Your task to perform on an android device: How do I get to the nearest T-Mobile Store? Image 0: 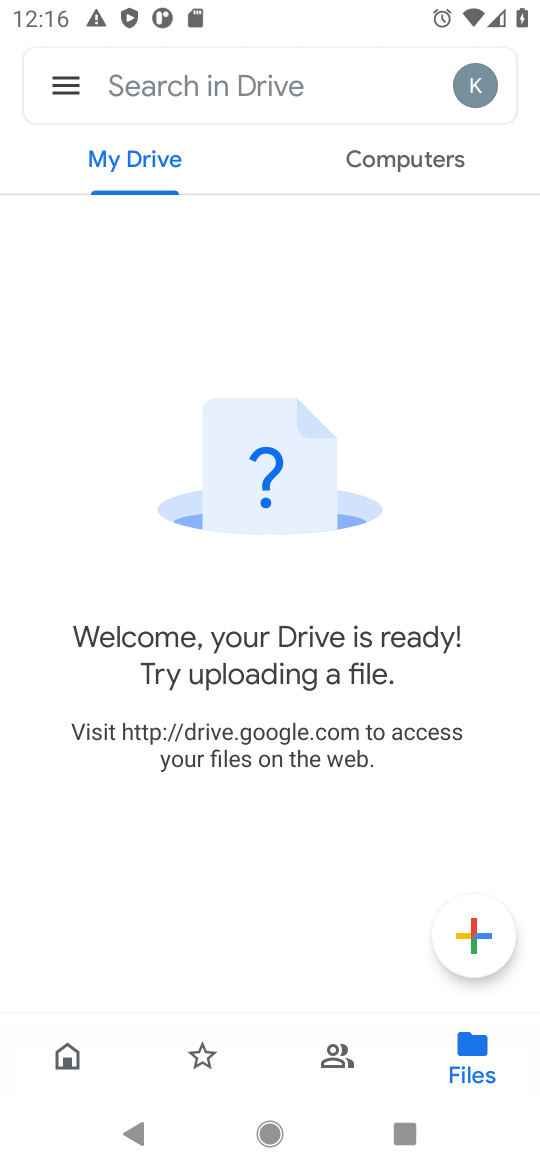
Step 0: press home button
Your task to perform on an android device: How do I get to the nearest T-Mobile Store? Image 1: 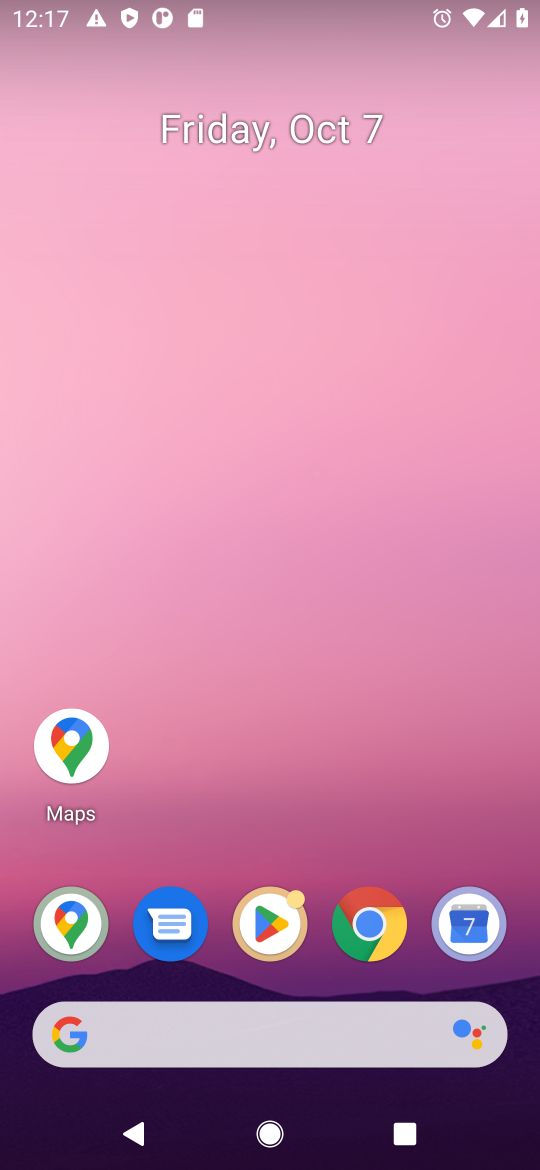
Step 1: click (360, 924)
Your task to perform on an android device: How do I get to the nearest T-Mobile Store? Image 2: 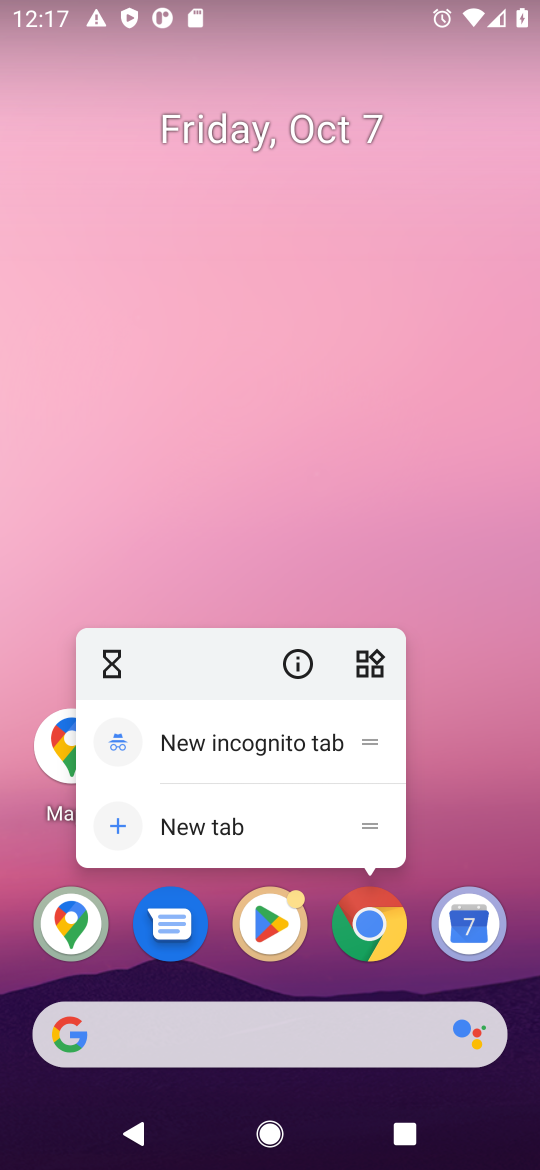
Step 2: click (360, 924)
Your task to perform on an android device: How do I get to the nearest T-Mobile Store? Image 3: 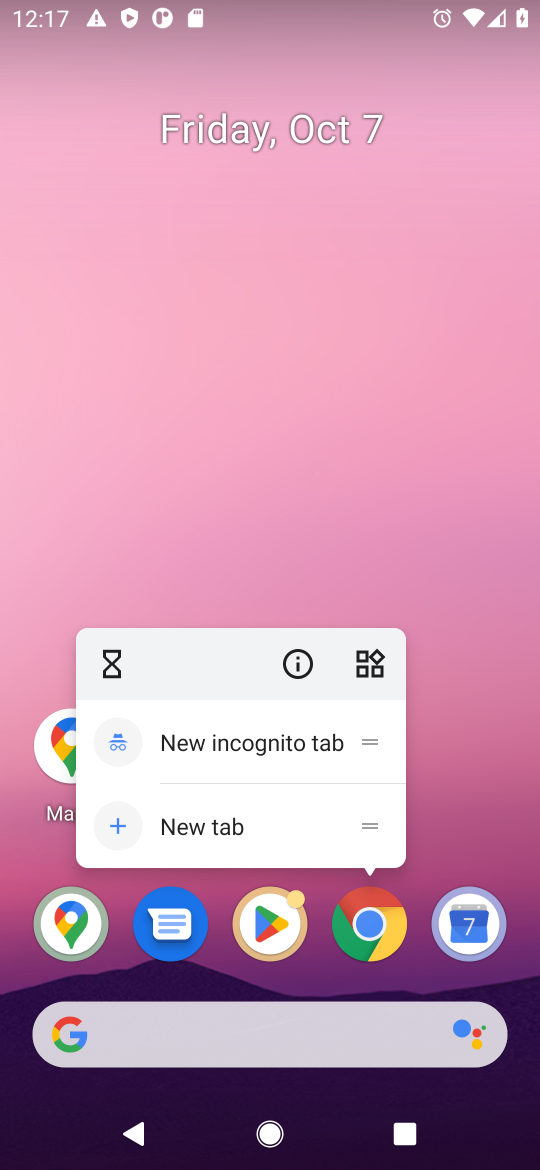
Step 3: click (380, 924)
Your task to perform on an android device: How do I get to the nearest T-Mobile Store? Image 4: 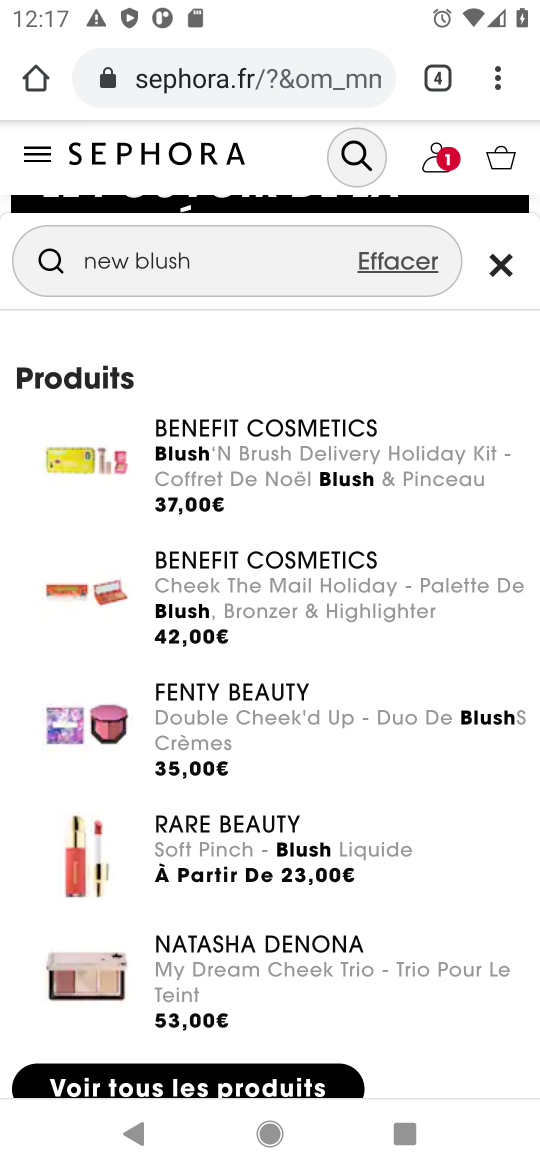
Step 4: click (339, 75)
Your task to perform on an android device: How do I get to the nearest T-Mobile Store? Image 5: 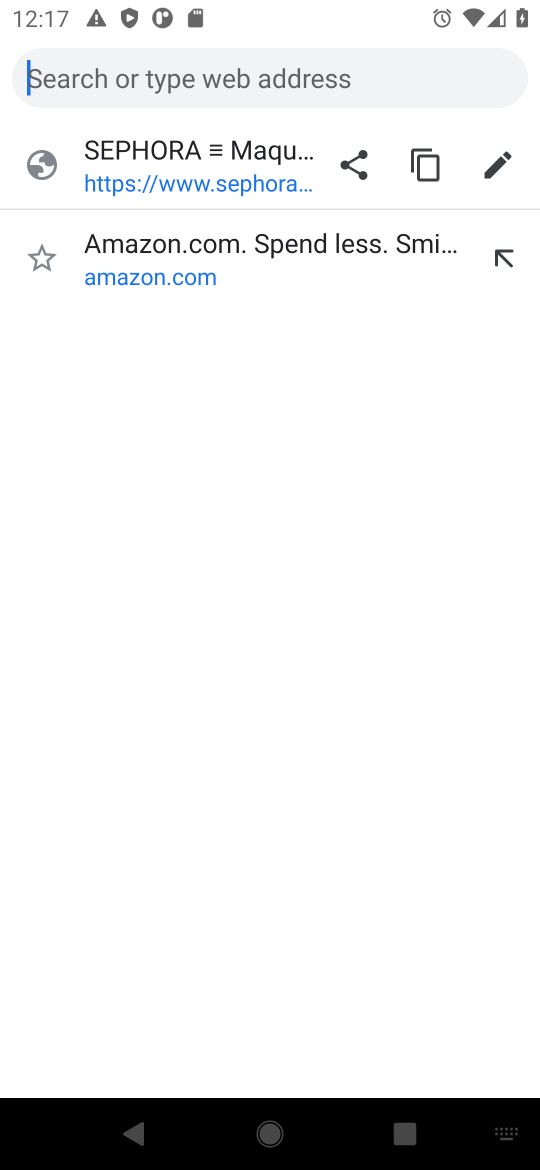
Step 5: type "nearest T-Mobile Store"
Your task to perform on an android device: How do I get to the nearest T-Mobile Store? Image 6: 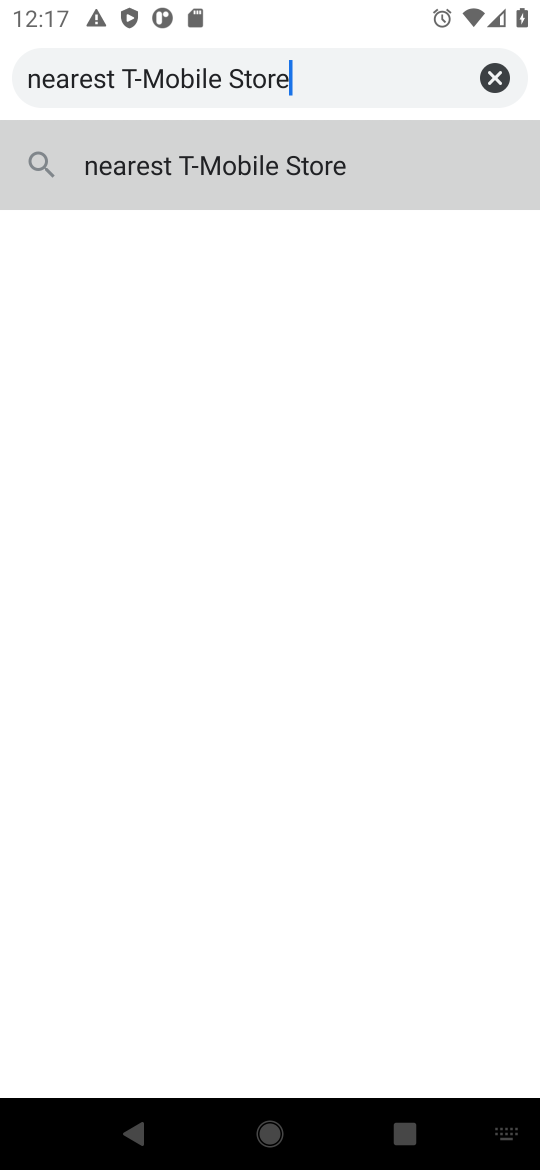
Step 6: click (202, 163)
Your task to perform on an android device: How do I get to the nearest T-Mobile Store? Image 7: 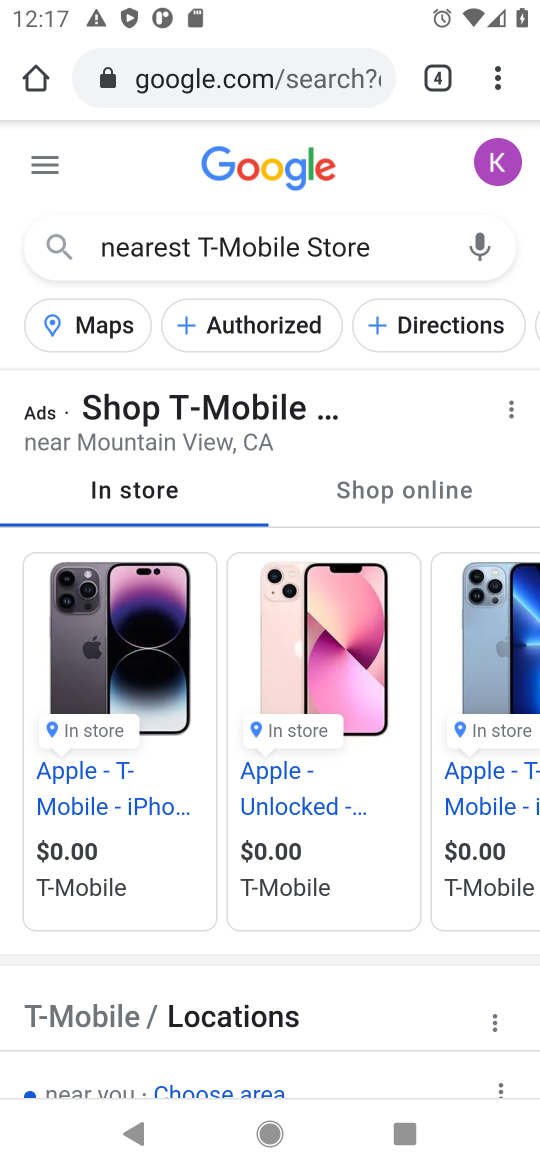
Step 7: drag from (244, 1044) to (218, 562)
Your task to perform on an android device: How do I get to the nearest T-Mobile Store? Image 8: 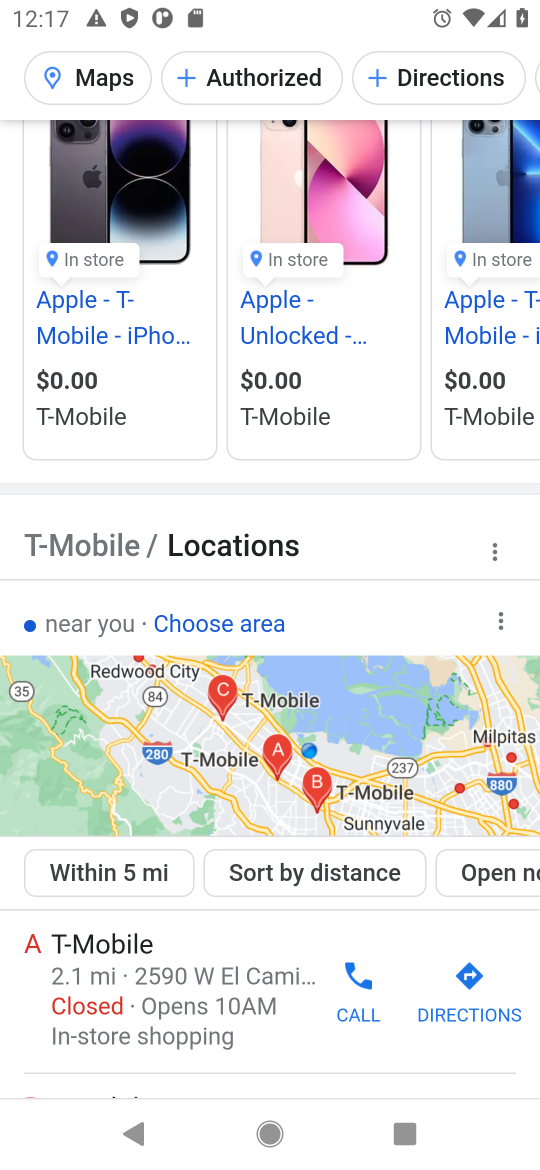
Step 8: drag from (245, 986) to (326, 631)
Your task to perform on an android device: How do I get to the nearest T-Mobile Store? Image 9: 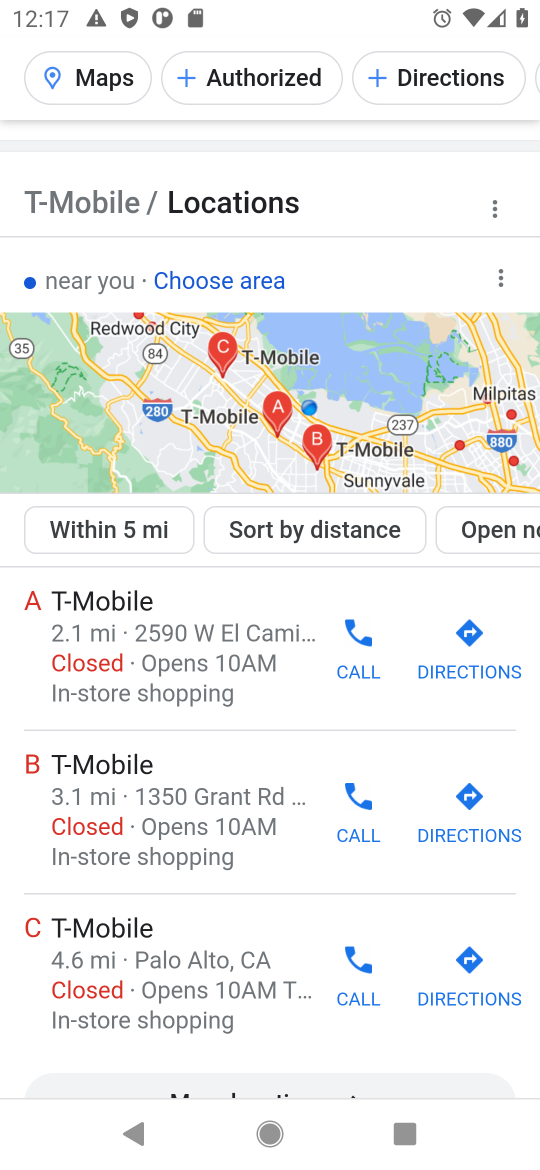
Step 9: click (120, 617)
Your task to perform on an android device: How do I get to the nearest T-Mobile Store? Image 10: 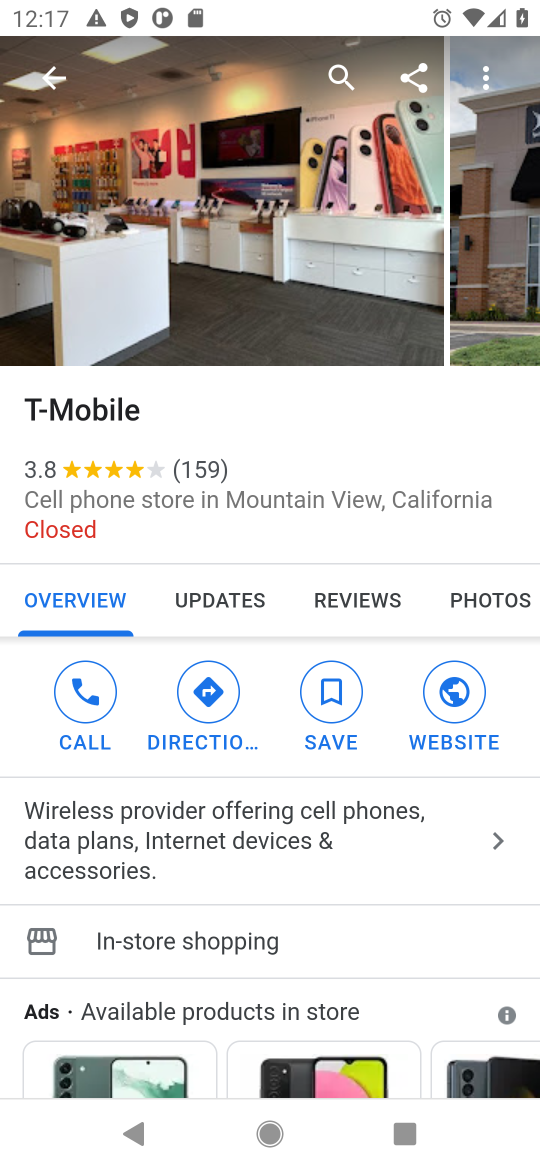
Step 10: task complete